Your task to perform on an android device: open app "LinkedIn" Image 0: 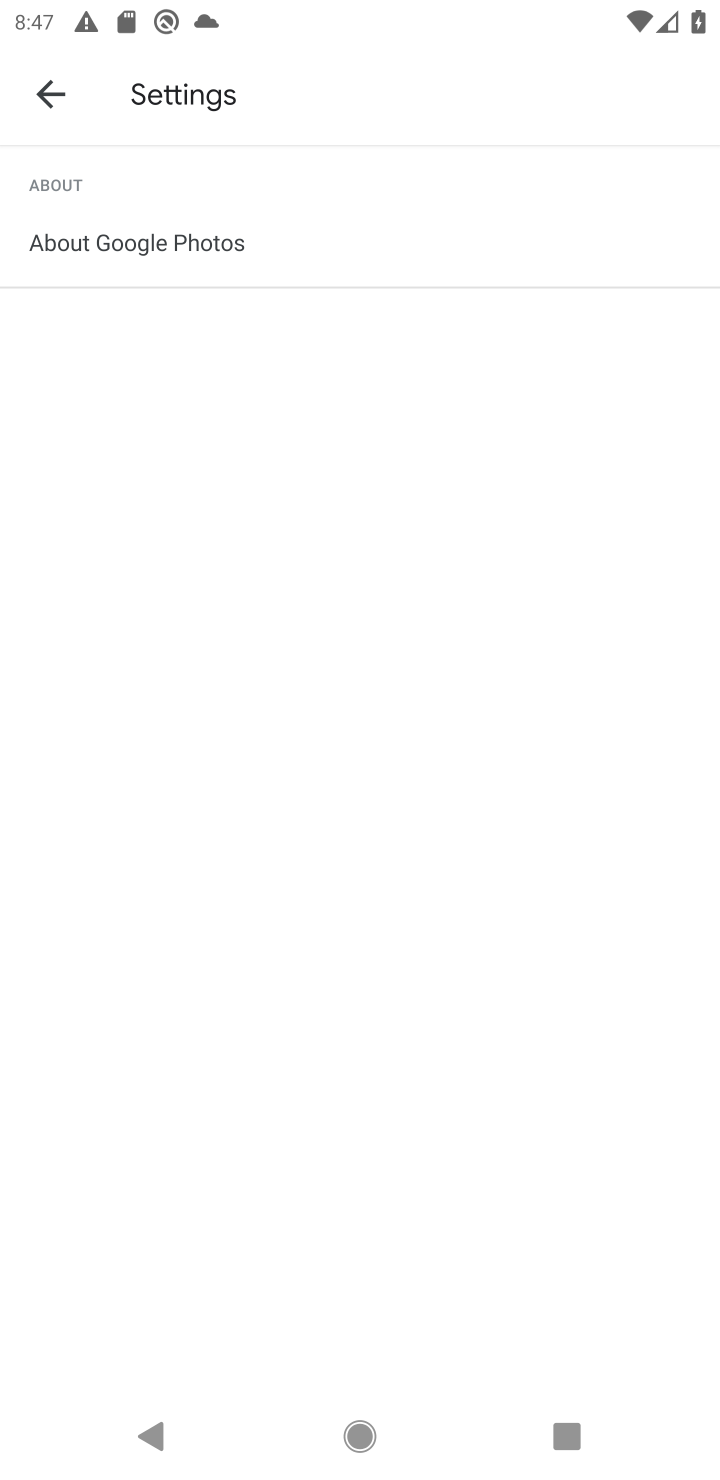
Step 0: press home button
Your task to perform on an android device: open app "LinkedIn" Image 1: 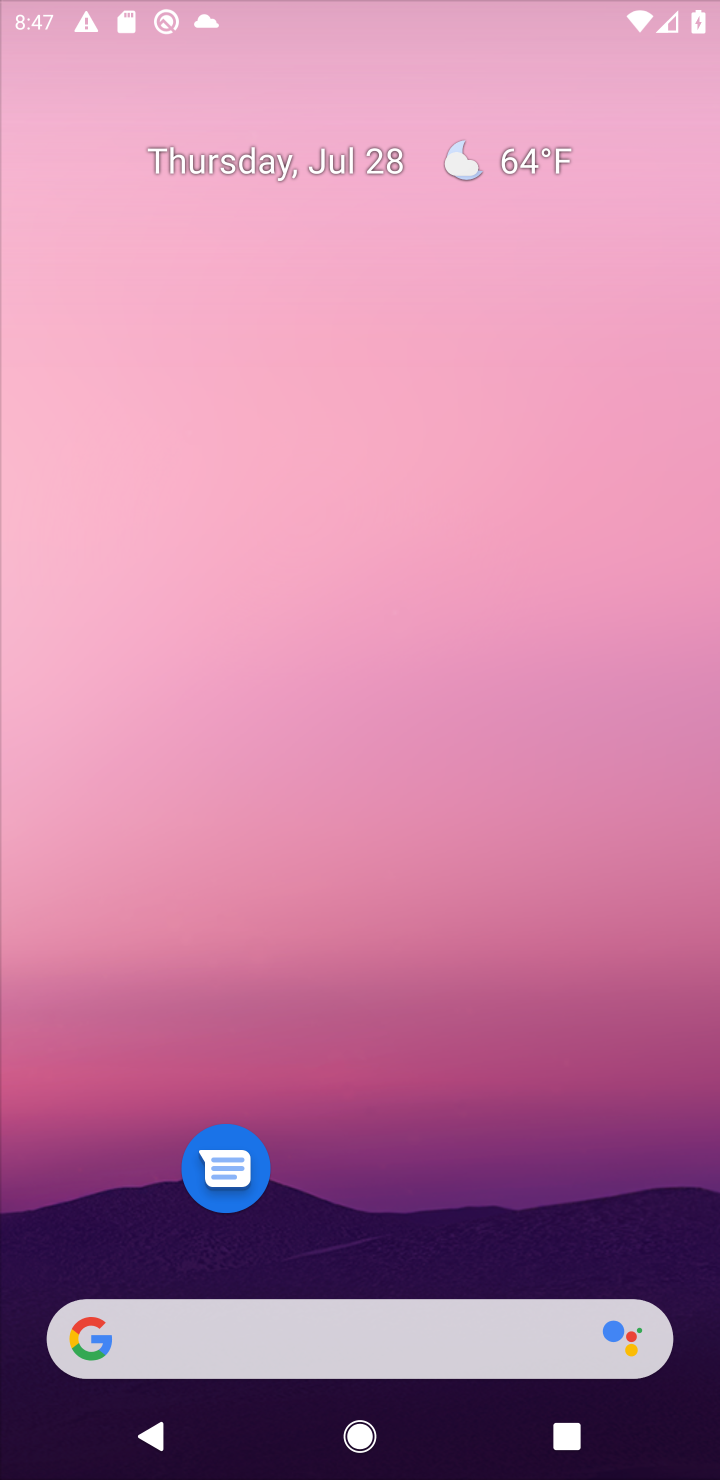
Step 1: drag from (415, 1340) to (362, 183)
Your task to perform on an android device: open app "LinkedIn" Image 2: 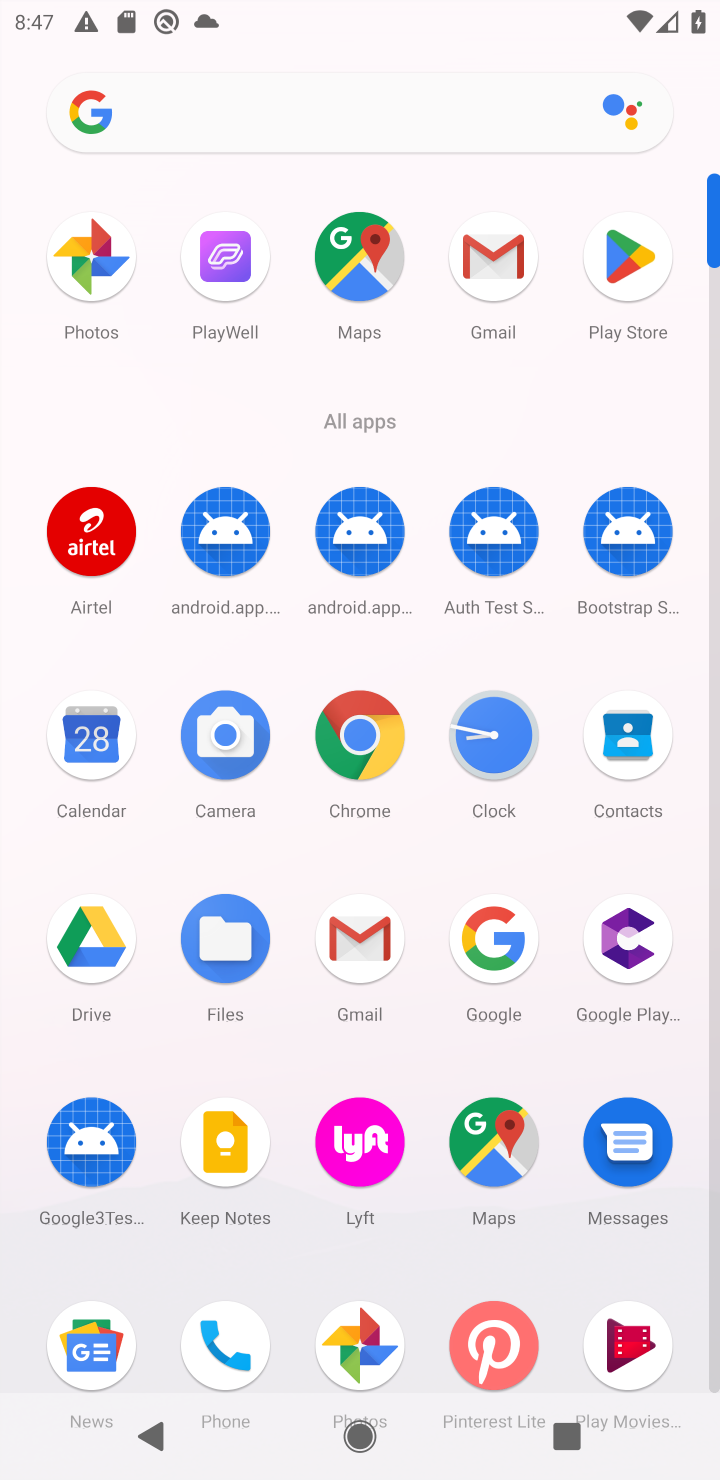
Step 2: click (616, 288)
Your task to perform on an android device: open app "LinkedIn" Image 3: 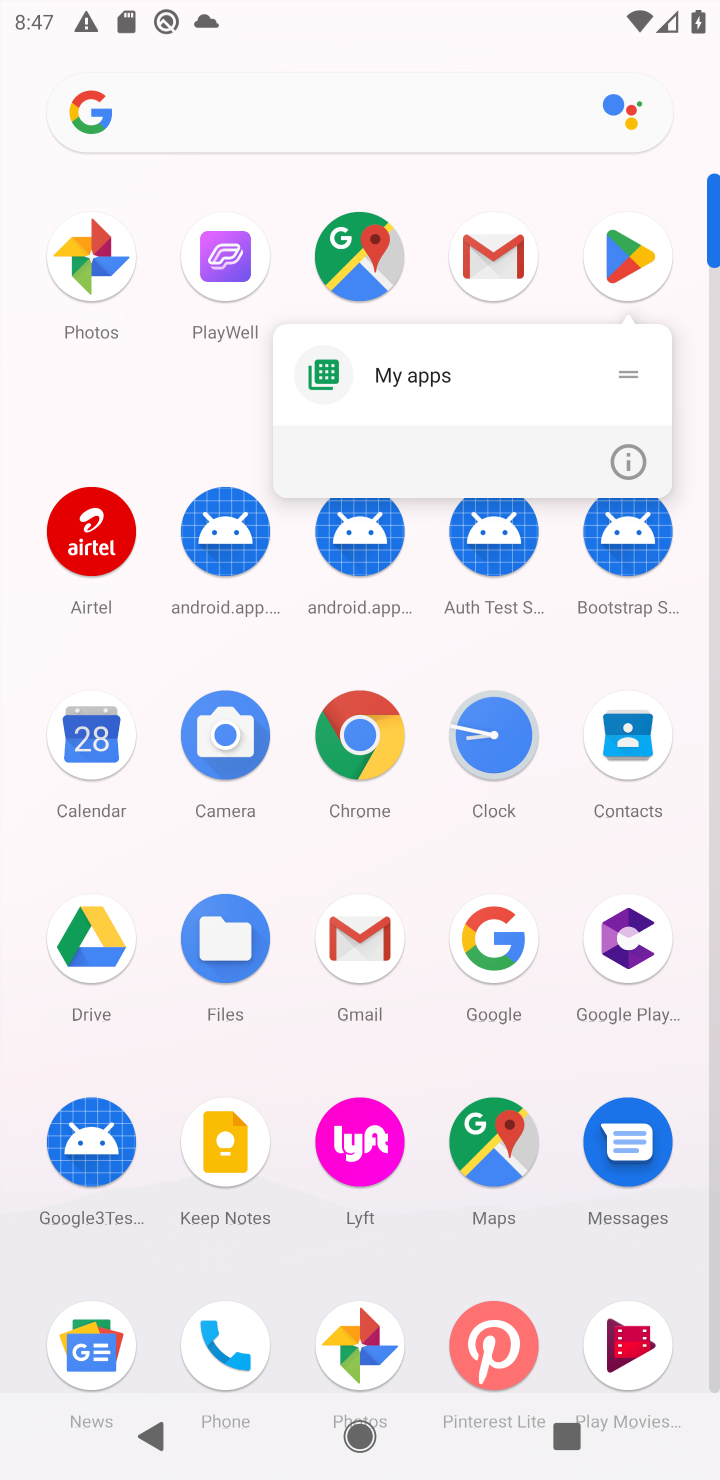
Step 3: click (616, 288)
Your task to perform on an android device: open app "LinkedIn" Image 4: 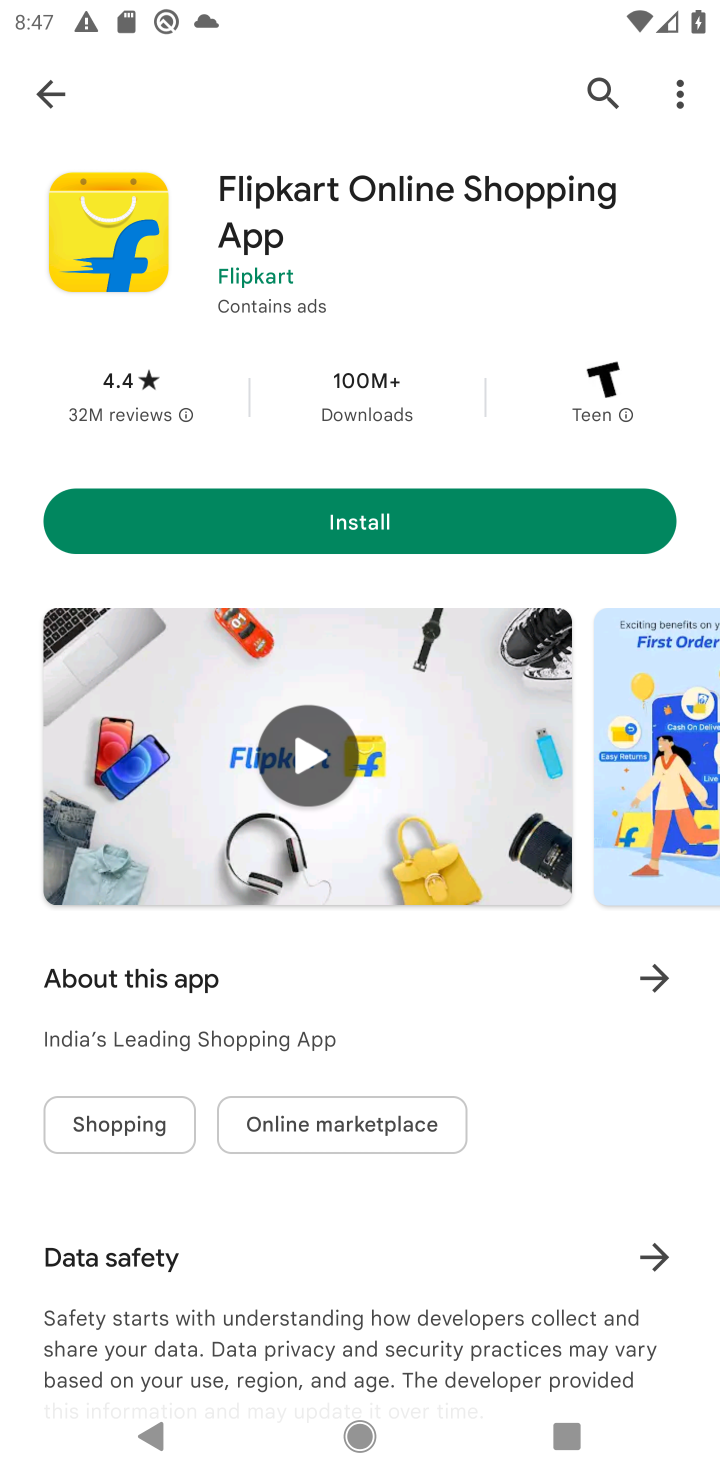
Step 4: click (612, 78)
Your task to perform on an android device: open app "LinkedIn" Image 5: 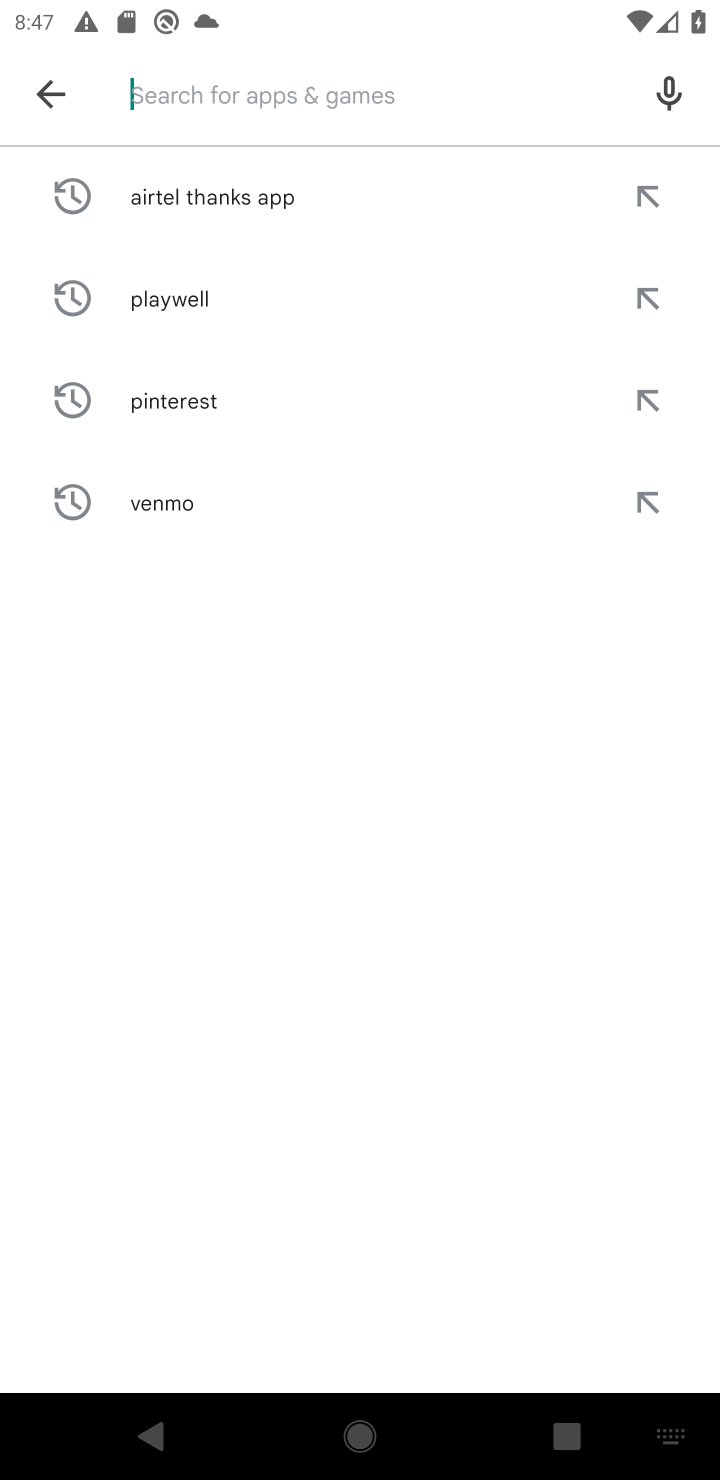
Step 5: type "linkedin"
Your task to perform on an android device: open app "LinkedIn" Image 6: 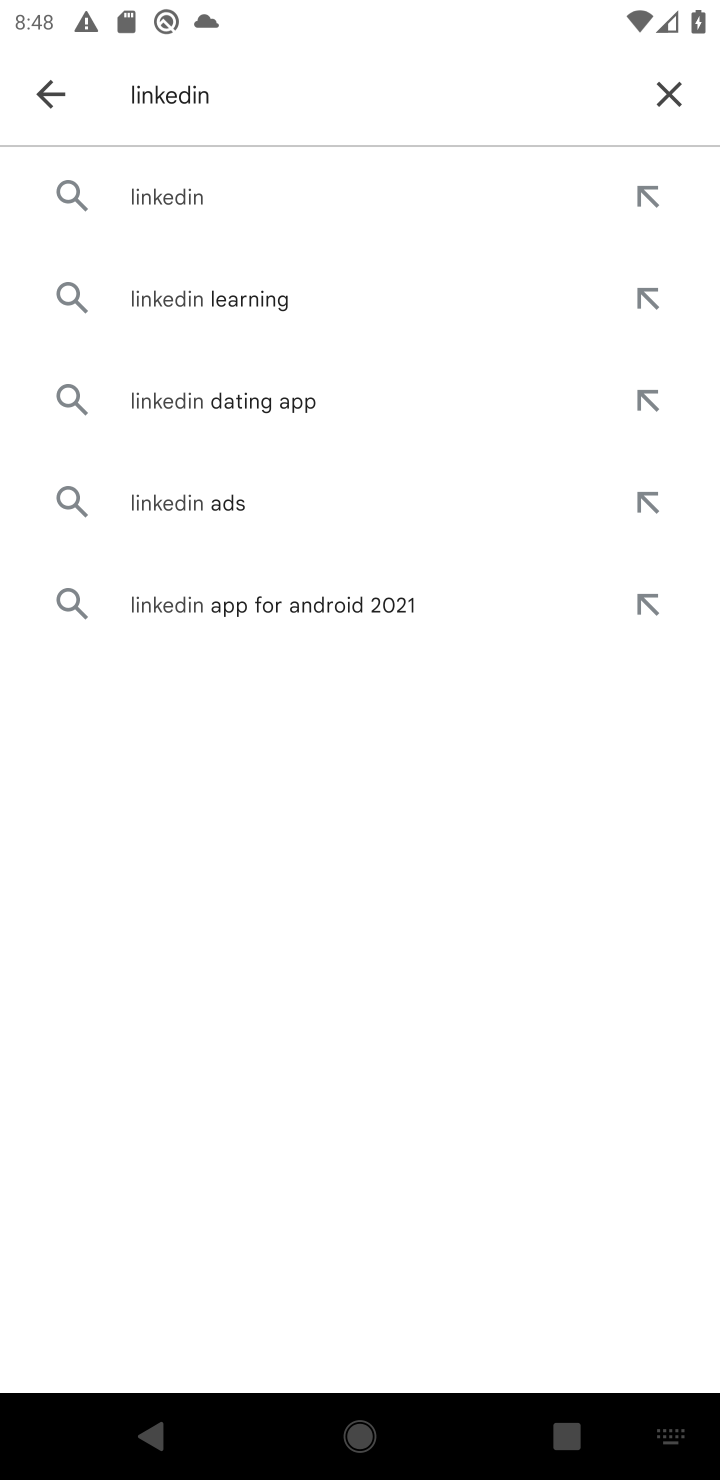
Step 6: click (196, 204)
Your task to perform on an android device: open app "LinkedIn" Image 7: 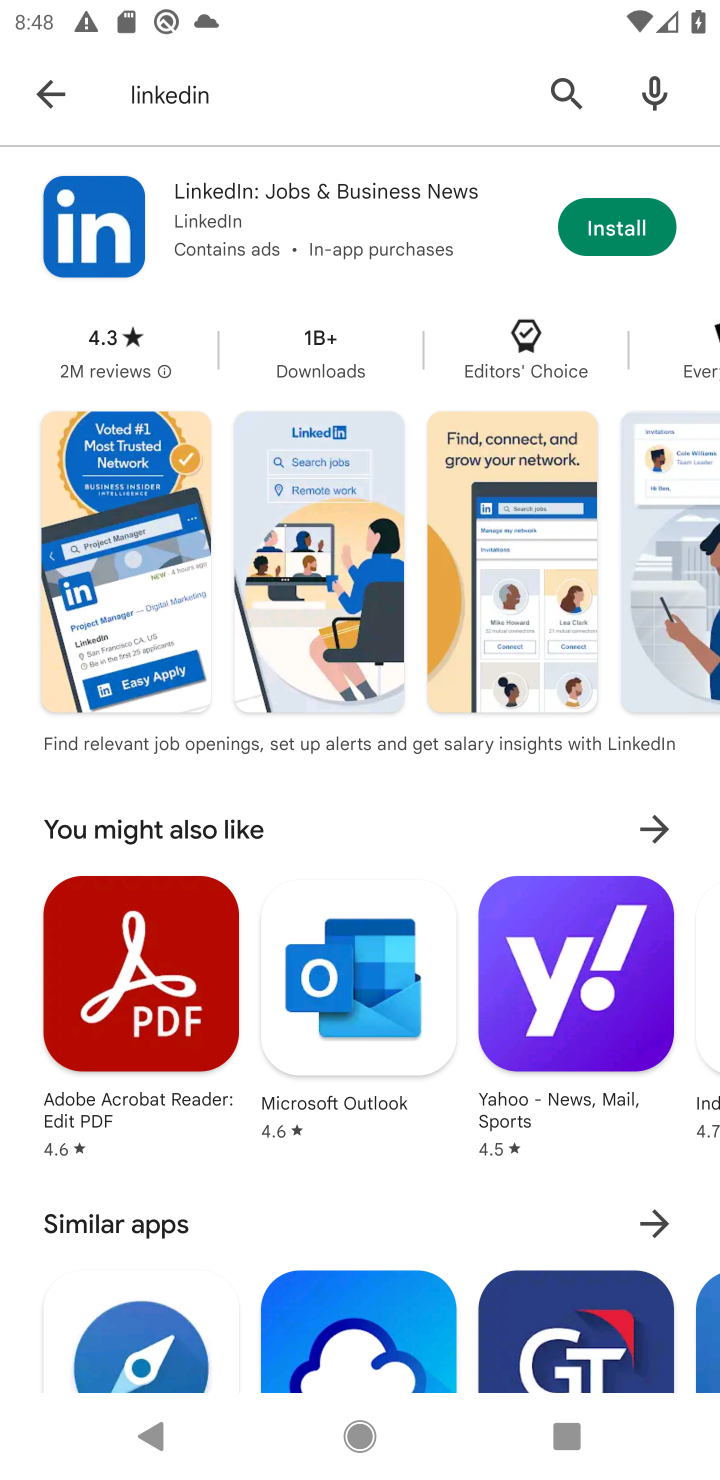
Step 7: task complete